Your task to perform on an android device: Open the phone app and click the voicemail tab. Image 0: 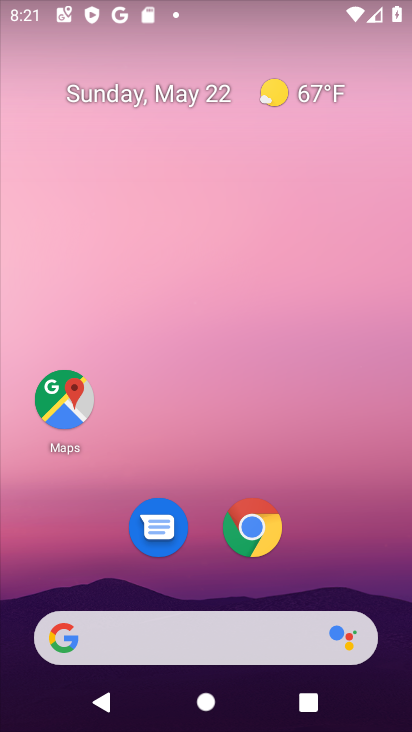
Step 0: press home button
Your task to perform on an android device: Open the phone app and click the voicemail tab. Image 1: 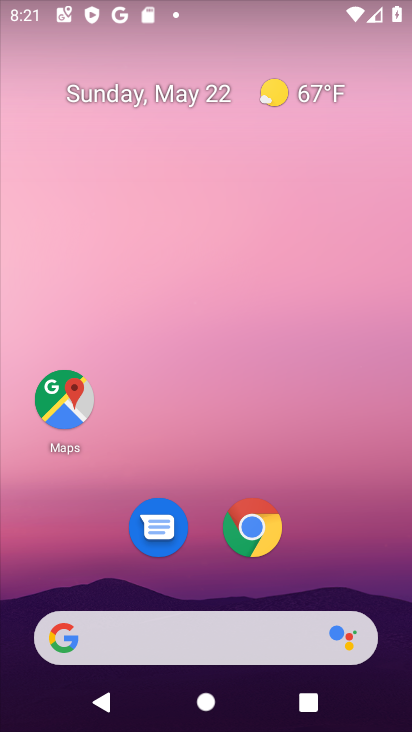
Step 1: drag from (215, 590) to (244, 37)
Your task to perform on an android device: Open the phone app and click the voicemail tab. Image 2: 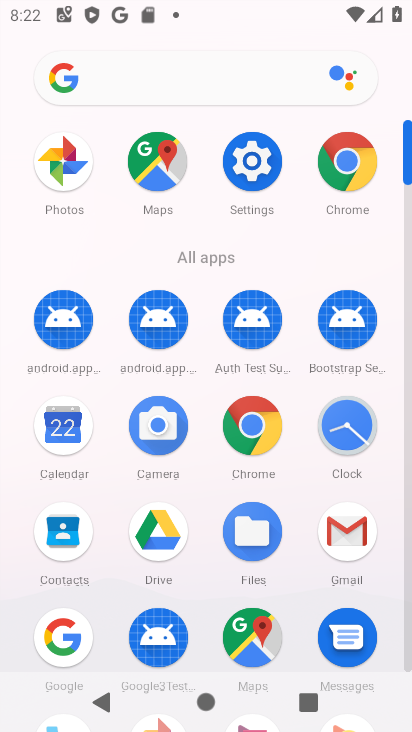
Step 2: drag from (221, 595) to (220, 113)
Your task to perform on an android device: Open the phone app and click the voicemail tab. Image 3: 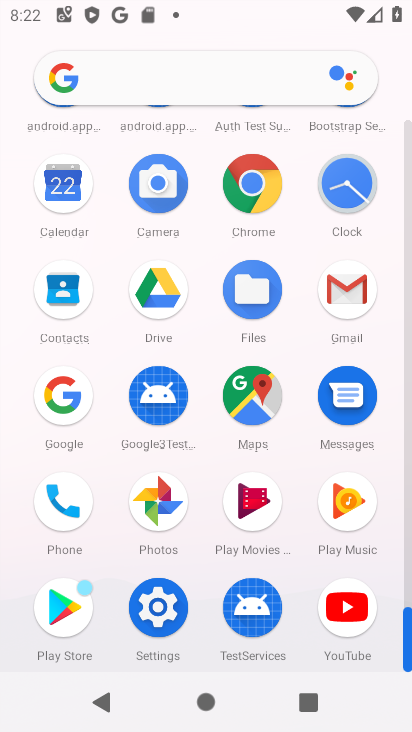
Step 3: click (60, 493)
Your task to perform on an android device: Open the phone app and click the voicemail tab. Image 4: 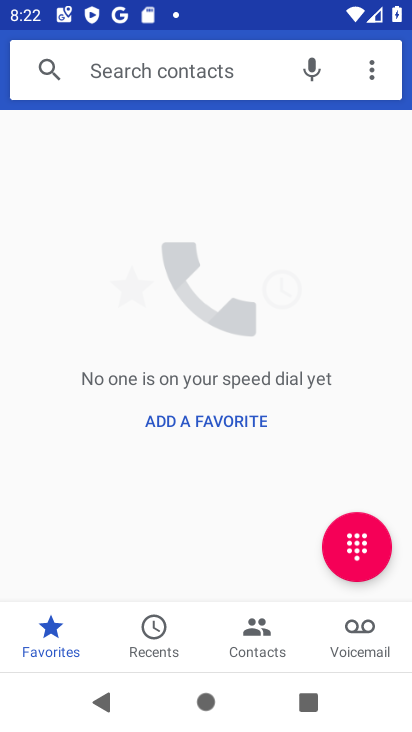
Step 4: click (352, 627)
Your task to perform on an android device: Open the phone app and click the voicemail tab. Image 5: 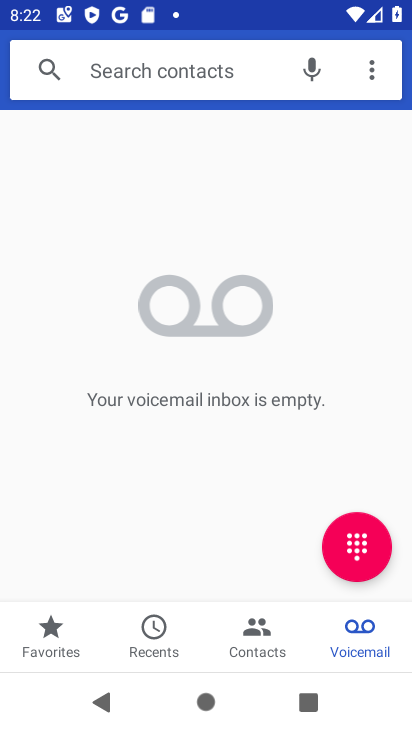
Step 5: task complete